Your task to perform on an android device: Open notification settings Image 0: 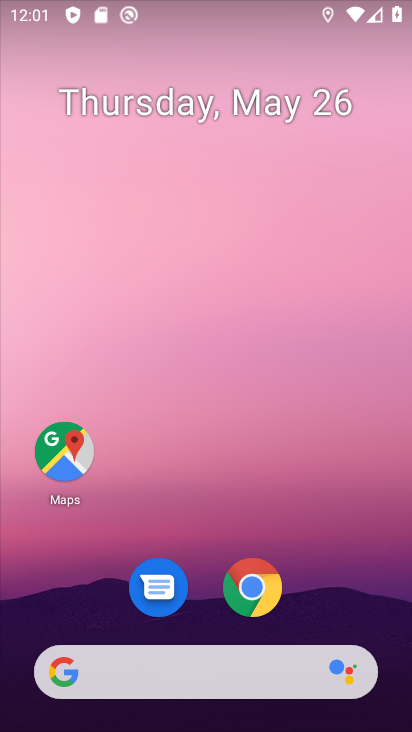
Step 0: drag from (366, 599) to (369, 126)
Your task to perform on an android device: Open notification settings Image 1: 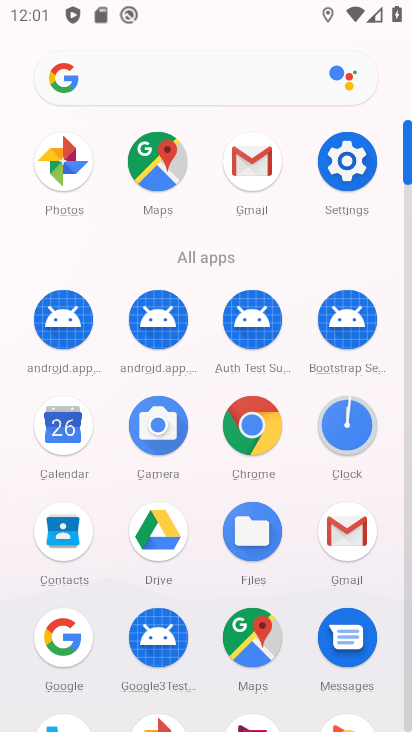
Step 1: click (357, 169)
Your task to perform on an android device: Open notification settings Image 2: 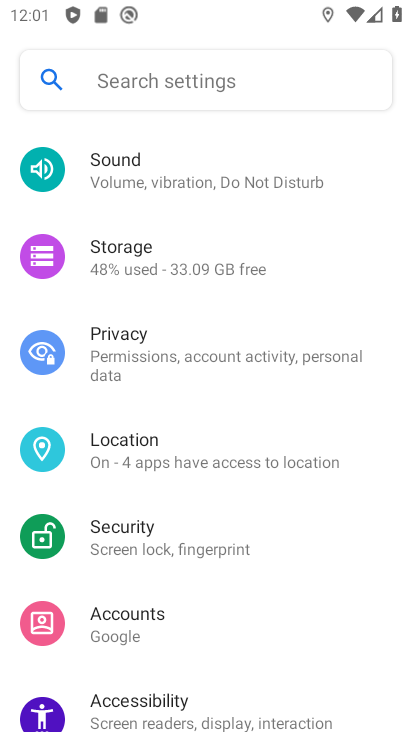
Step 2: drag from (343, 258) to (339, 410)
Your task to perform on an android device: Open notification settings Image 3: 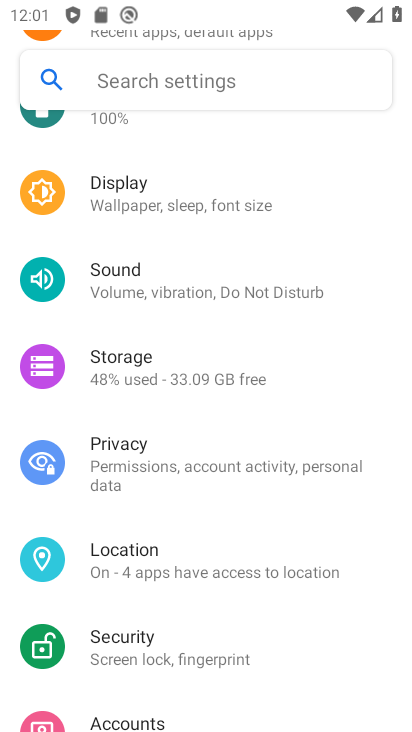
Step 3: drag from (360, 240) to (362, 397)
Your task to perform on an android device: Open notification settings Image 4: 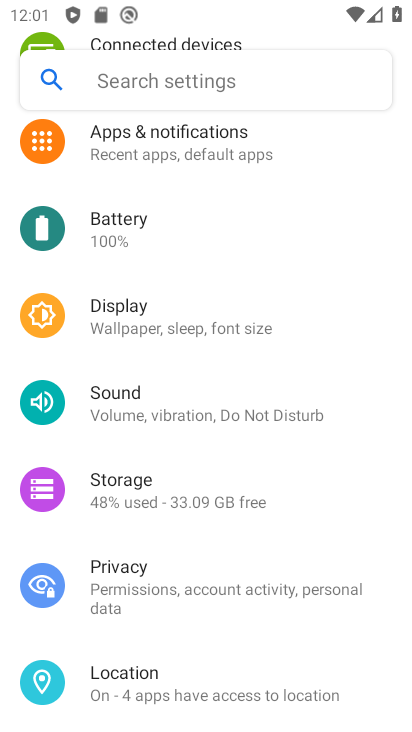
Step 4: drag from (354, 223) to (359, 370)
Your task to perform on an android device: Open notification settings Image 5: 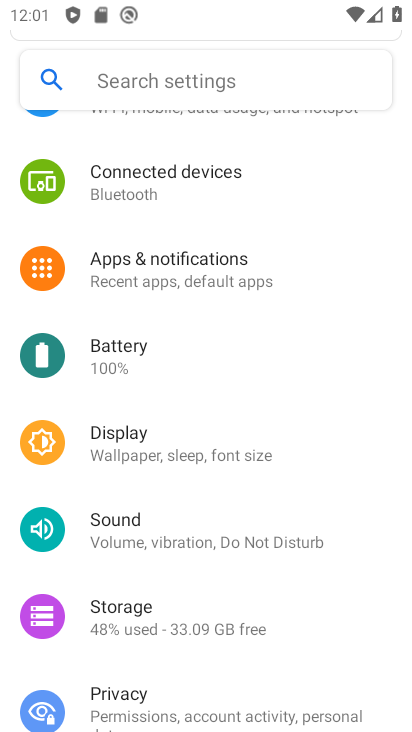
Step 5: drag from (335, 242) to (348, 418)
Your task to perform on an android device: Open notification settings Image 6: 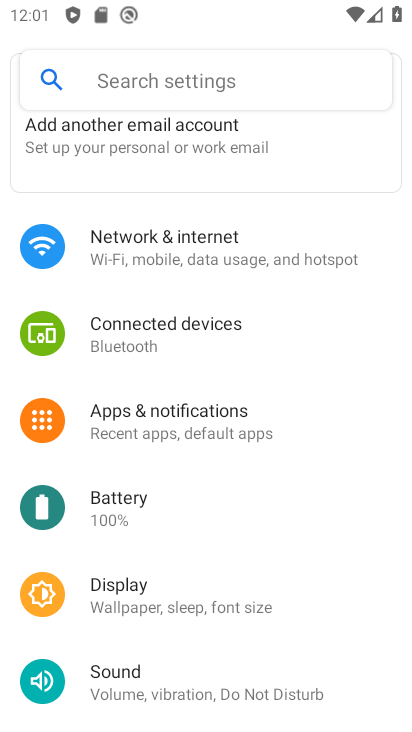
Step 6: drag from (349, 215) to (367, 358)
Your task to perform on an android device: Open notification settings Image 7: 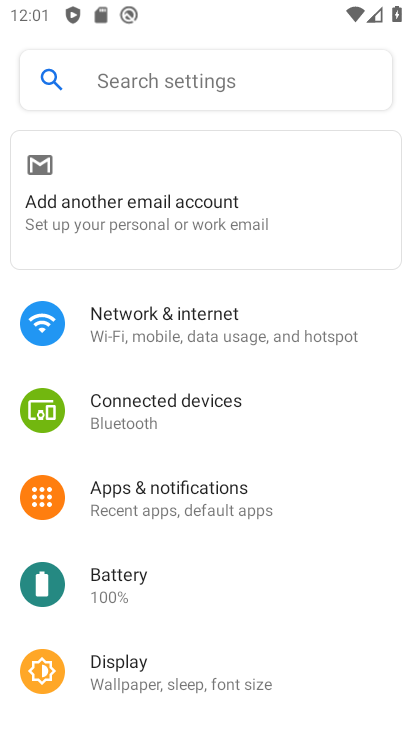
Step 7: drag from (351, 523) to (362, 400)
Your task to perform on an android device: Open notification settings Image 8: 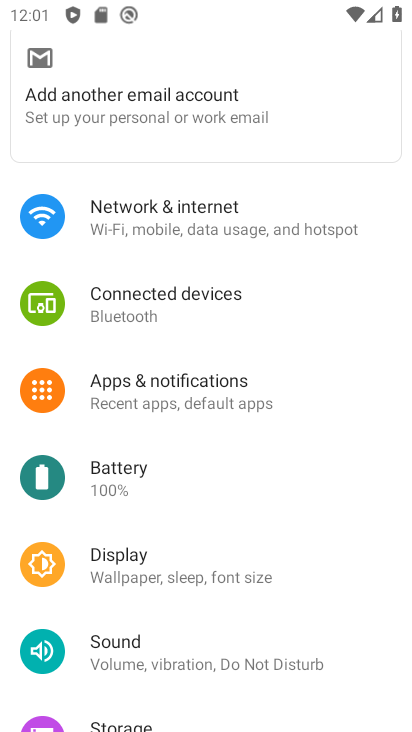
Step 8: drag from (354, 539) to (353, 434)
Your task to perform on an android device: Open notification settings Image 9: 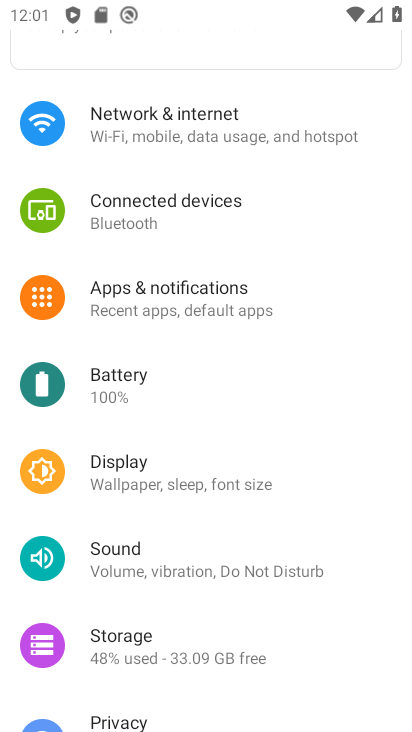
Step 9: click (232, 304)
Your task to perform on an android device: Open notification settings Image 10: 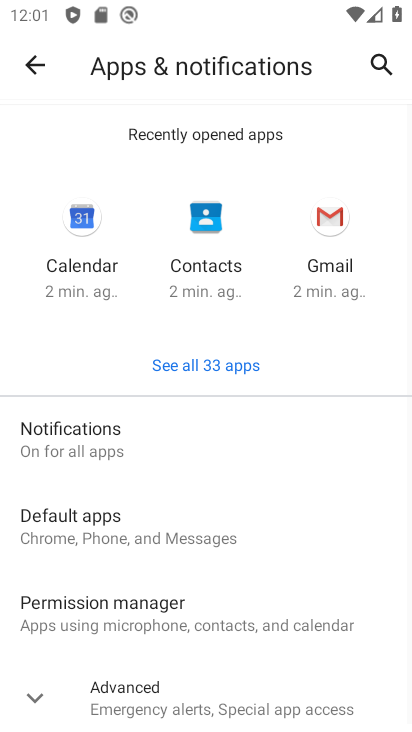
Step 10: click (86, 447)
Your task to perform on an android device: Open notification settings Image 11: 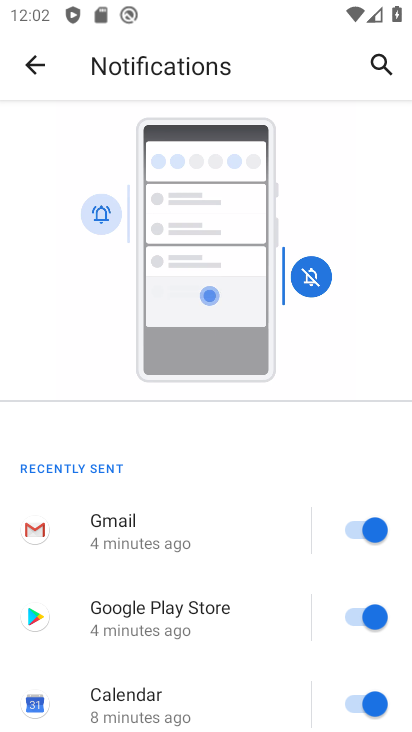
Step 11: task complete